Your task to perform on an android device: check battery use Image 0: 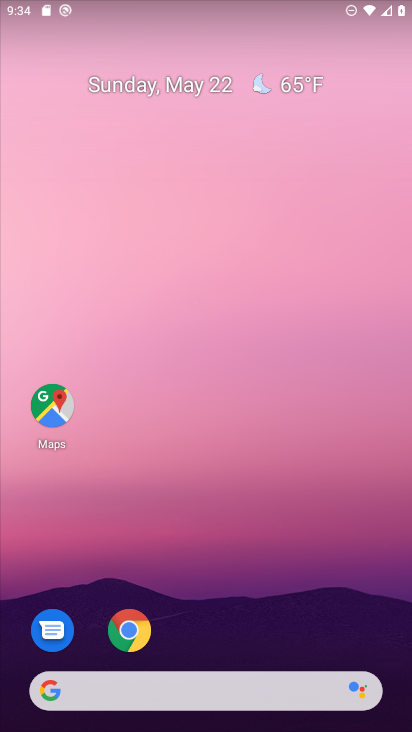
Step 0: press home button
Your task to perform on an android device: check battery use Image 1: 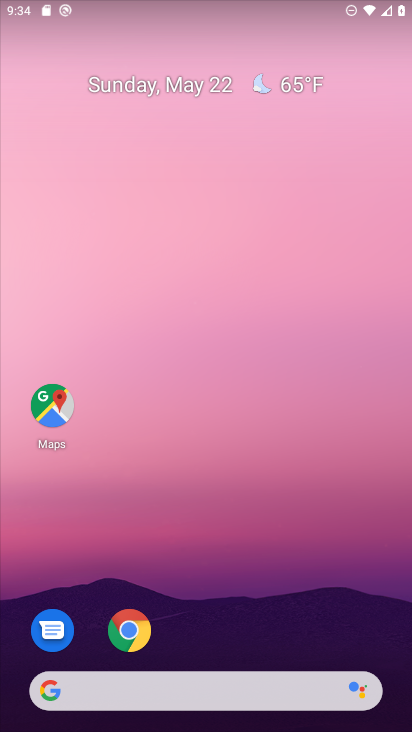
Step 1: drag from (145, 689) to (332, 80)
Your task to perform on an android device: check battery use Image 2: 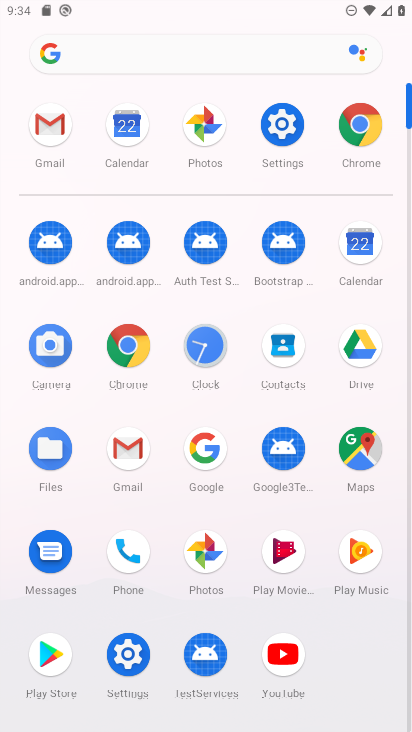
Step 2: click (288, 127)
Your task to perform on an android device: check battery use Image 3: 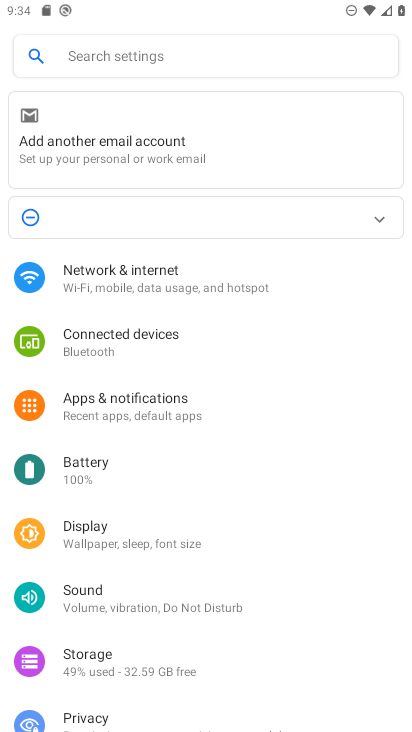
Step 3: click (93, 472)
Your task to perform on an android device: check battery use Image 4: 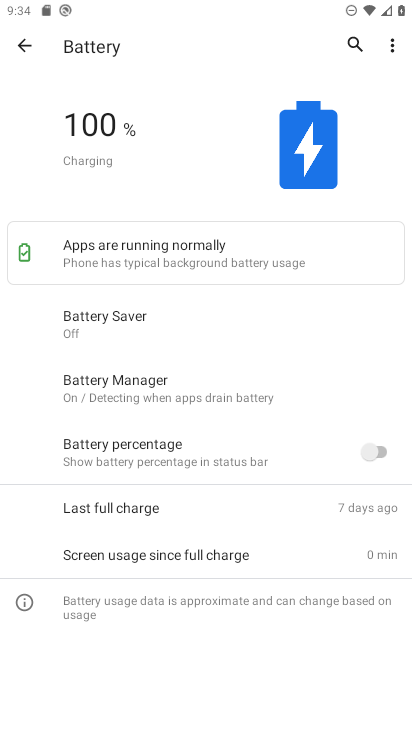
Step 4: click (389, 46)
Your task to perform on an android device: check battery use Image 5: 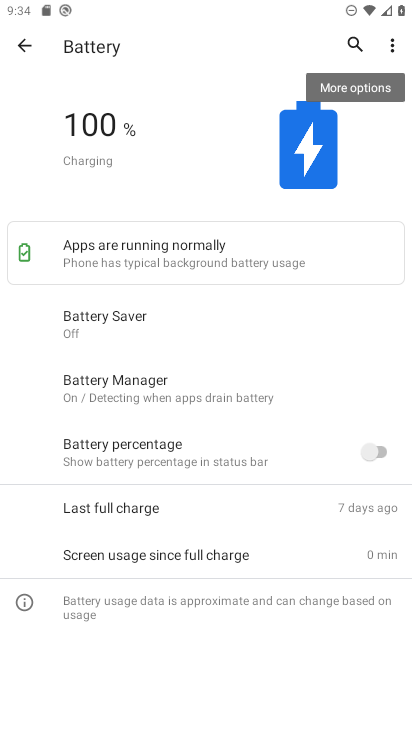
Step 5: click (392, 45)
Your task to perform on an android device: check battery use Image 6: 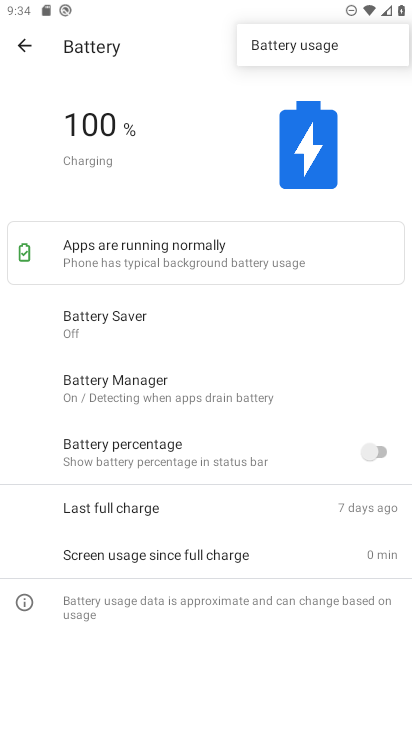
Step 6: click (288, 51)
Your task to perform on an android device: check battery use Image 7: 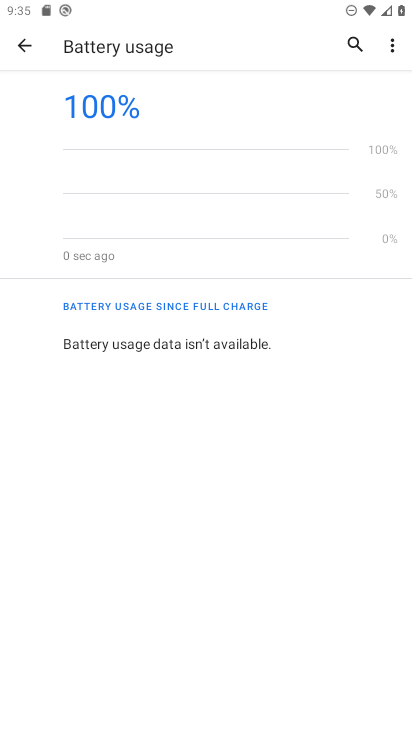
Step 7: task complete